Your task to perform on an android device: Go to Android settings Image 0: 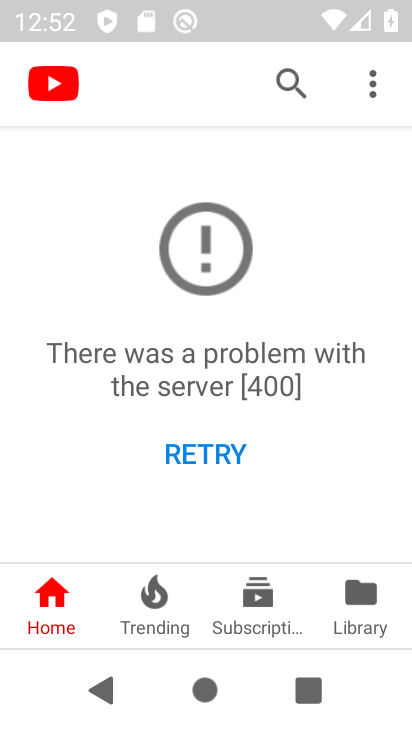
Step 0: press home button
Your task to perform on an android device: Go to Android settings Image 1: 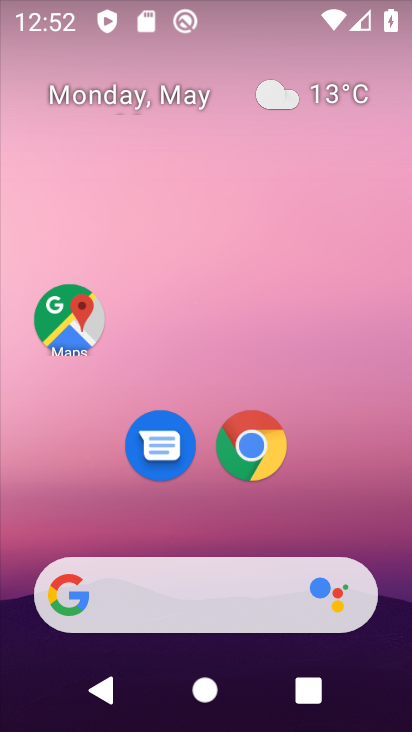
Step 1: drag from (262, 341) to (260, 70)
Your task to perform on an android device: Go to Android settings Image 2: 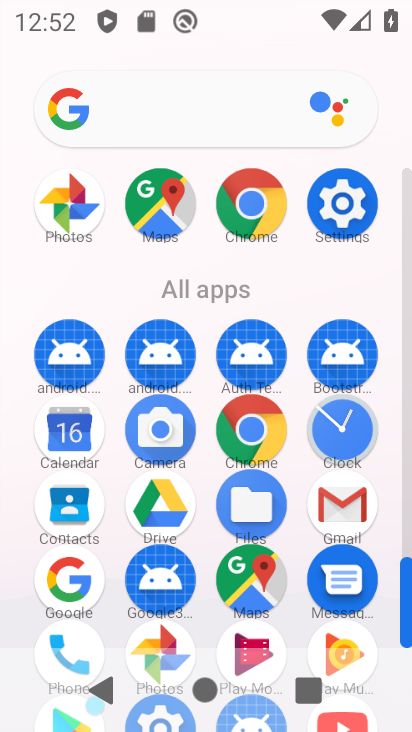
Step 2: click (356, 227)
Your task to perform on an android device: Go to Android settings Image 3: 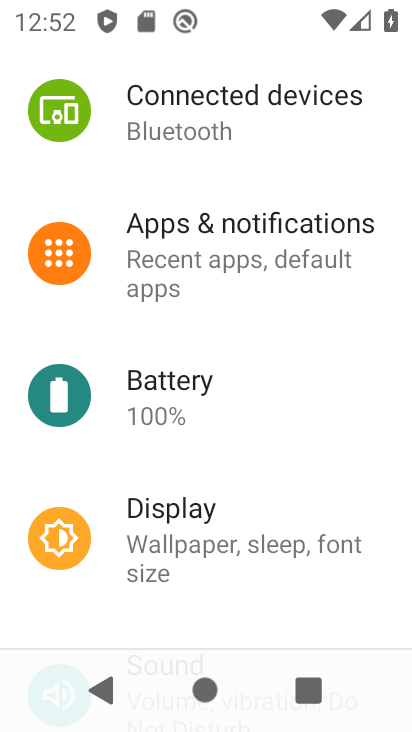
Step 3: drag from (193, 490) to (193, 249)
Your task to perform on an android device: Go to Android settings Image 4: 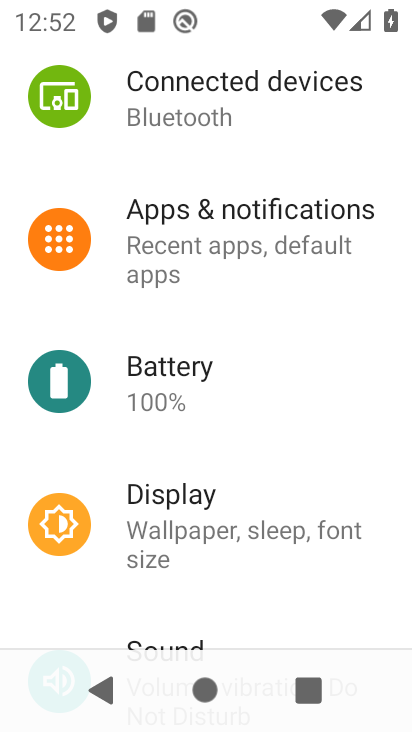
Step 4: drag from (242, 554) to (260, 208)
Your task to perform on an android device: Go to Android settings Image 5: 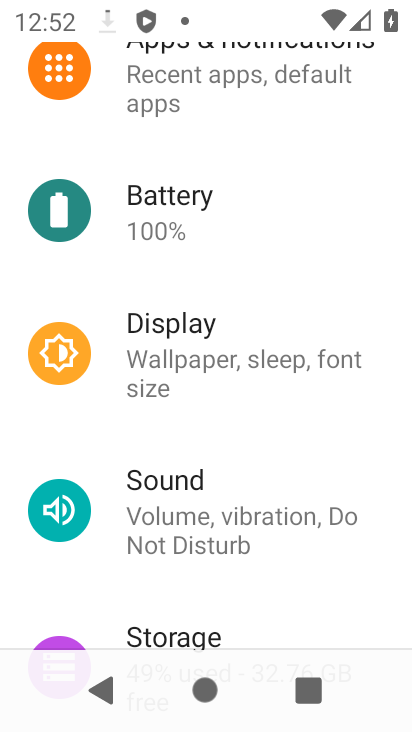
Step 5: drag from (233, 599) to (250, 199)
Your task to perform on an android device: Go to Android settings Image 6: 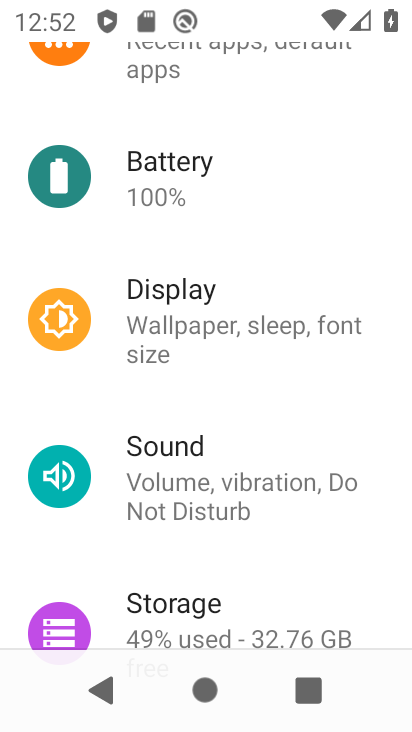
Step 6: drag from (240, 559) to (241, 207)
Your task to perform on an android device: Go to Android settings Image 7: 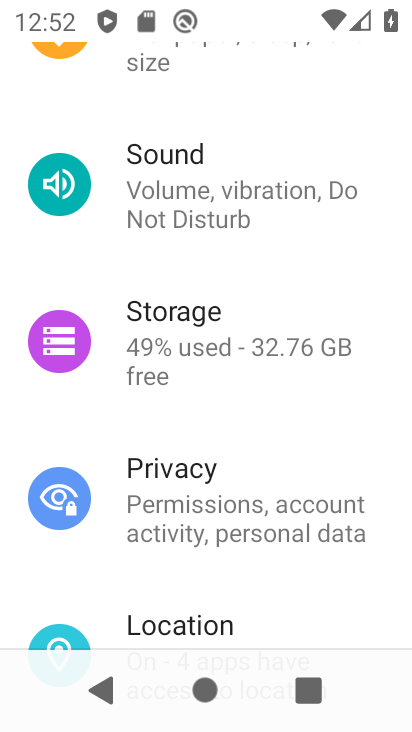
Step 7: drag from (232, 623) to (183, 82)
Your task to perform on an android device: Go to Android settings Image 8: 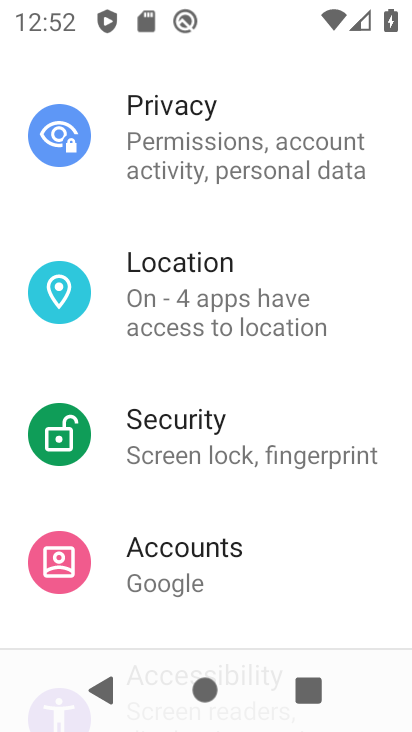
Step 8: drag from (244, 560) to (289, 127)
Your task to perform on an android device: Go to Android settings Image 9: 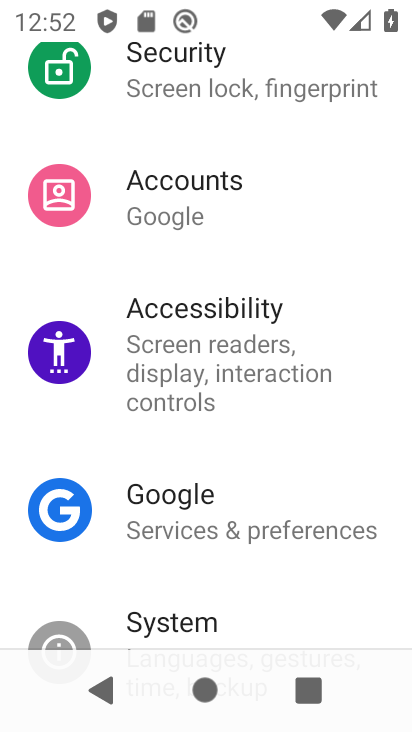
Step 9: drag from (199, 628) to (208, 117)
Your task to perform on an android device: Go to Android settings Image 10: 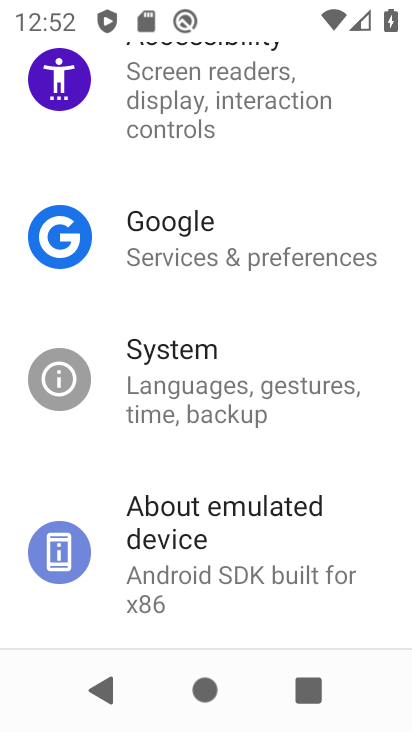
Step 10: click (206, 559)
Your task to perform on an android device: Go to Android settings Image 11: 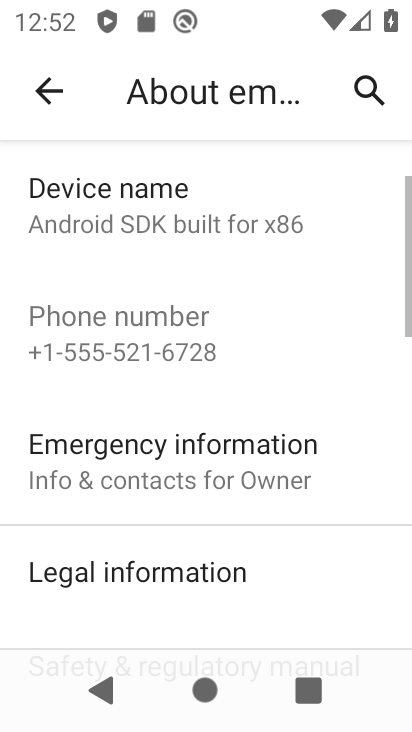
Step 11: drag from (206, 559) to (224, 158)
Your task to perform on an android device: Go to Android settings Image 12: 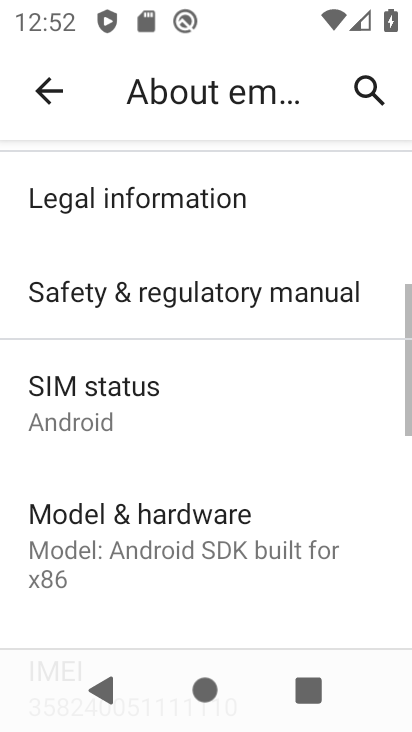
Step 12: drag from (162, 568) to (152, 148)
Your task to perform on an android device: Go to Android settings Image 13: 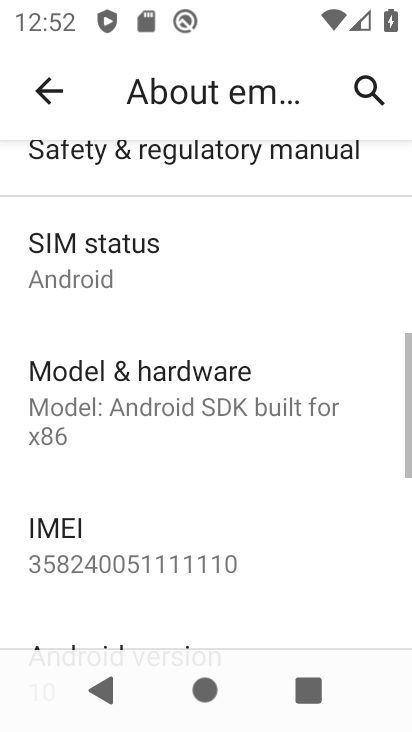
Step 13: drag from (210, 656) to (221, 232)
Your task to perform on an android device: Go to Android settings Image 14: 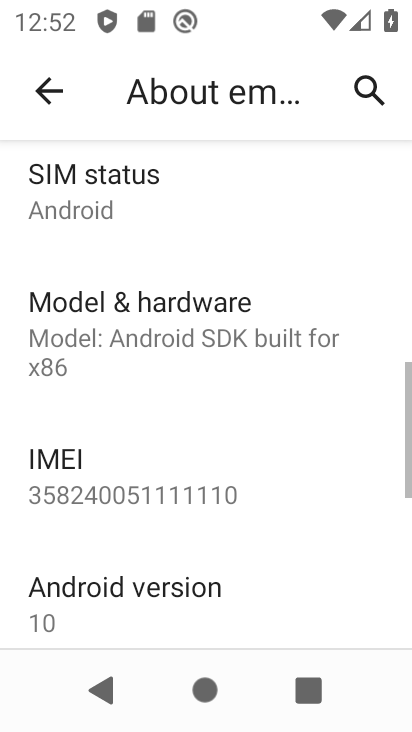
Step 14: drag from (179, 553) to (156, 78)
Your task to perform on an android device: Go to Android settings Image 15: 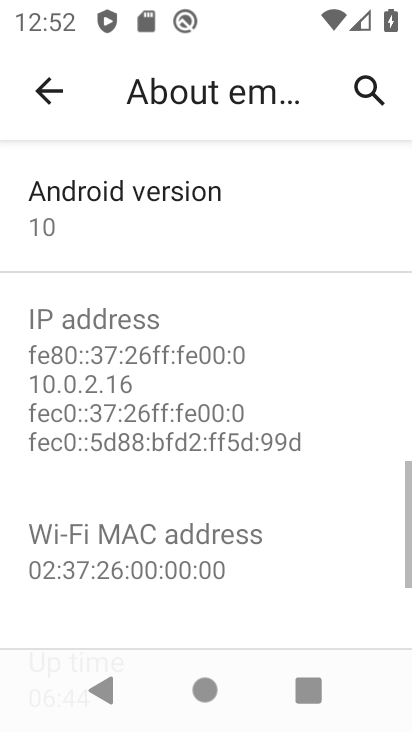
Step 15: click (138, 207)
Your task to perform on an android device: Go to Android settings Image 16: 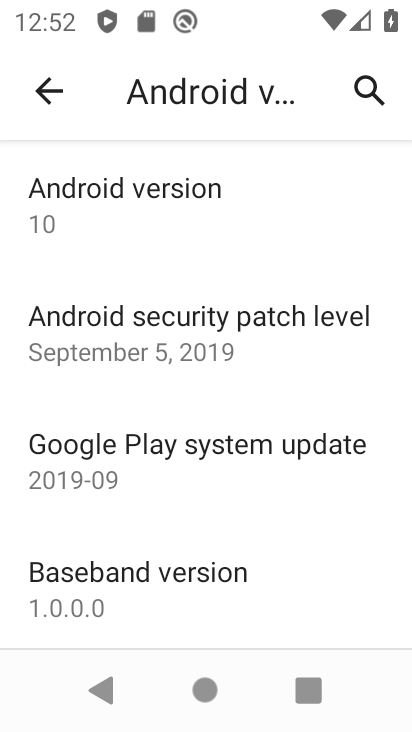
Step 16: task complete